Your task to perform on an android device: Open the calendar and show me this week's events? Image 0: 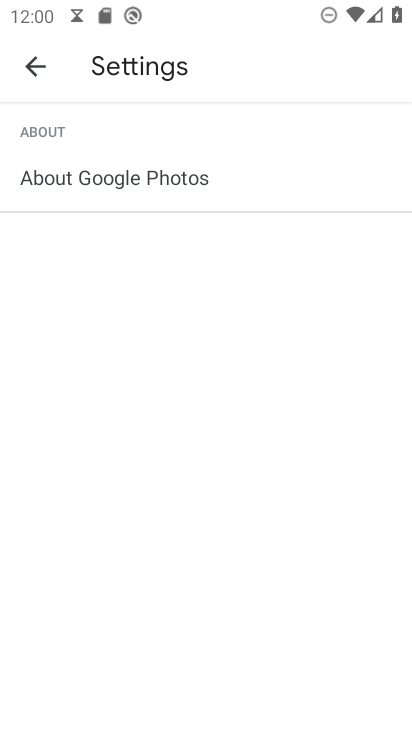
Step 0: press home button
Your task to perform on an android device: Open the calendar and show me this week's events? Image 1: 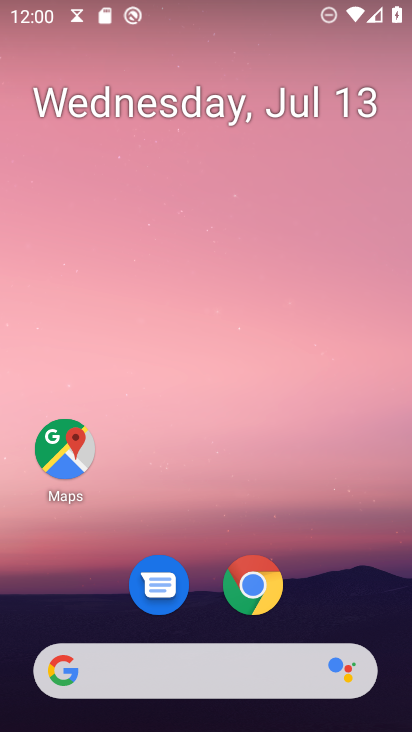
Step 1: drag from (183, 680) to (303, 107)
Your task to perform on an android device: Open the calendar and show me this week's events? Image 2: 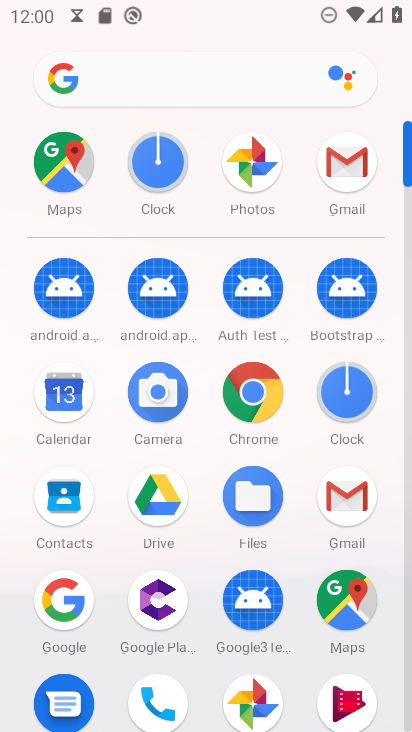
Step 2: click (58, 404)
Your task to perform on an android device: Open the calendar and show me this week's events? Image 3: 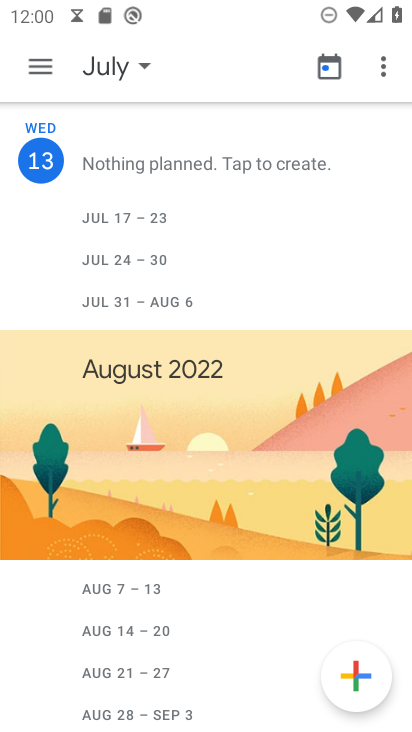
Step 3: click (101, 66)
Your task to perform on an android device: Open the calendar and show me this week's events? Image 4: 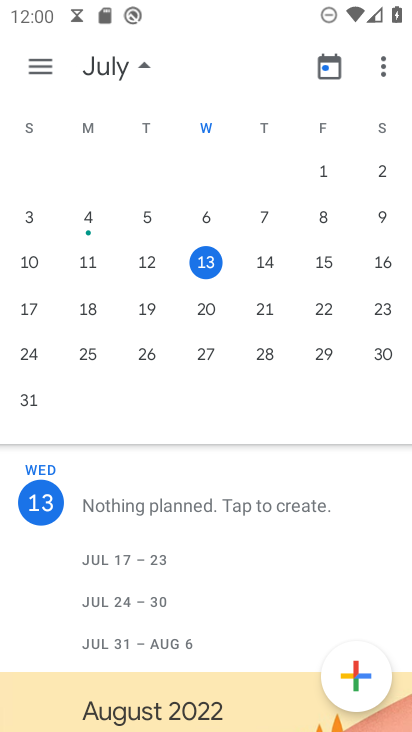
Step 4: click (213, 270)
Your task to perform on an android device: Open the calendar and show me this week's events? Image 5: 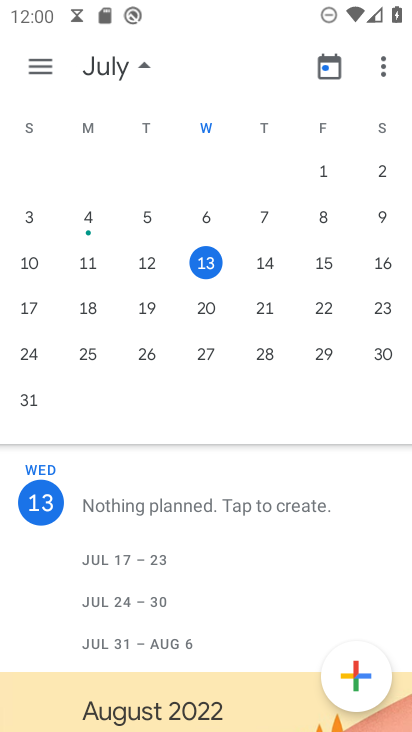
Step 5: click (41, 74)
Your task to perform on an android device: Open the calendar and show me this week's events? Image 6: 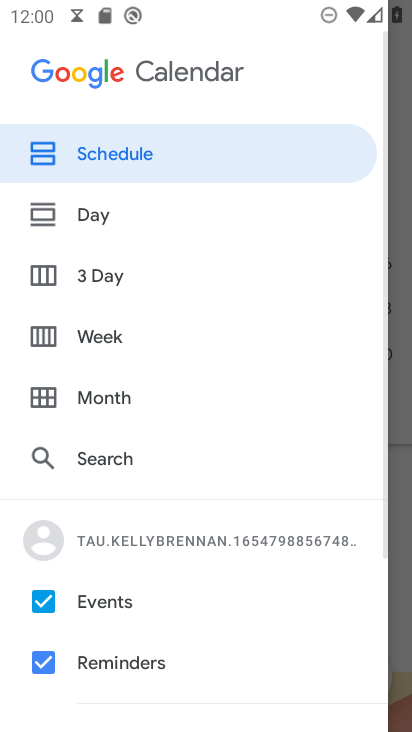
Step 6: click (90, 340)
Your task to perform on an android device: Open the calendar and show me this week's events? Image 7: 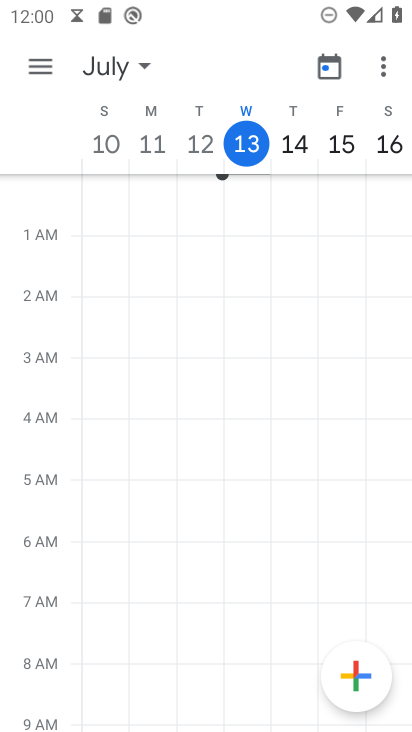
Step 7: click (38, 61)
Your task to perform on an android device: Open the calendar and show me this week's events? Image 8: 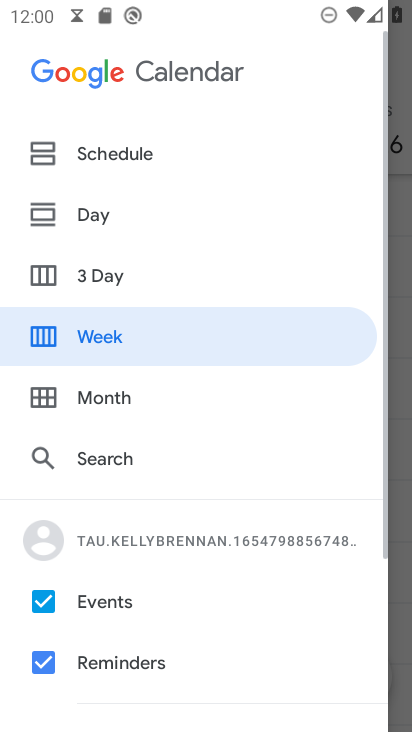
Step 8: click (127, 154)
Your task to perform on an android device: Open the calendar and show me this week's events? Image 9: 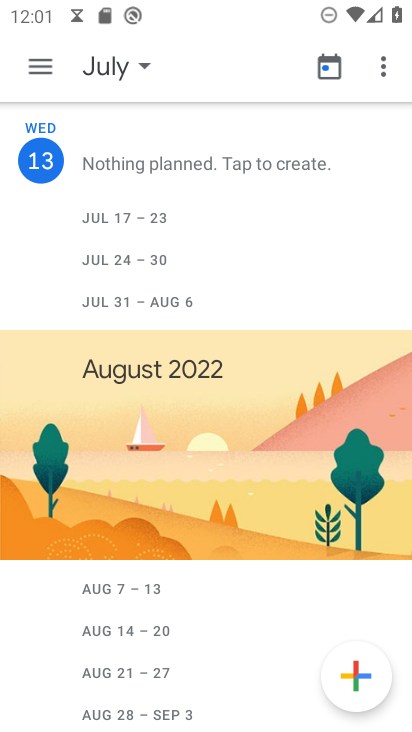
Step 9: task complete